Your task to perform on an android device: remove spam from my inbox in the gmail app Image 0: 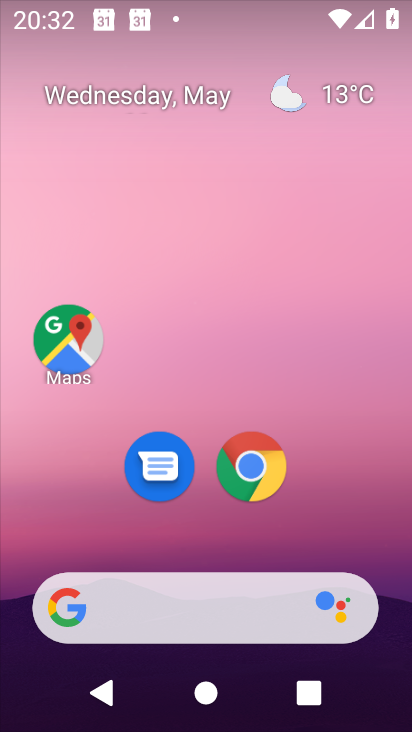
Step 0: drag from (215, 529) to (215, 57)
Your task to perform on an android device: remove spam from my inbox in the gmail app Image 1: 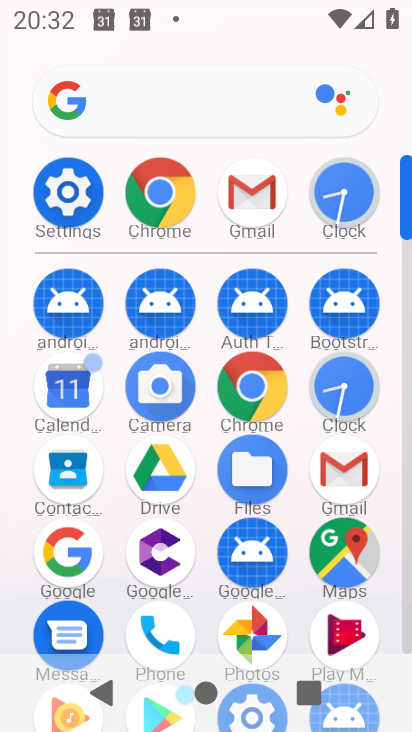
Step 1: click (346, 464)
Your task to perform on an android device: remove spam from my inbox in the gmail app Image 2: 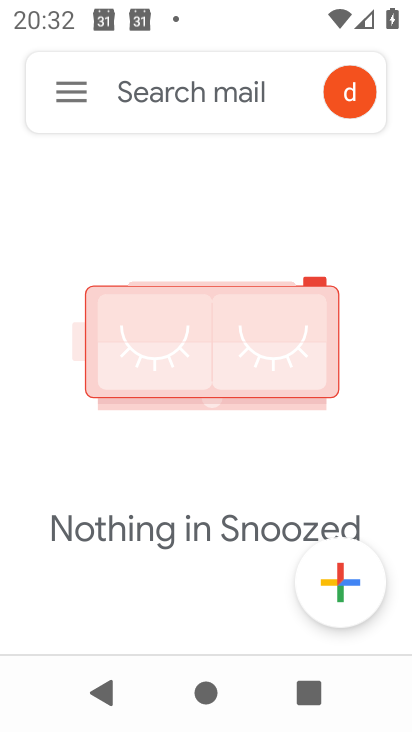
Step 2: click (68, 85)
Your task to perform on an android device: remove spam from my inbox in the gmail app Image 3: 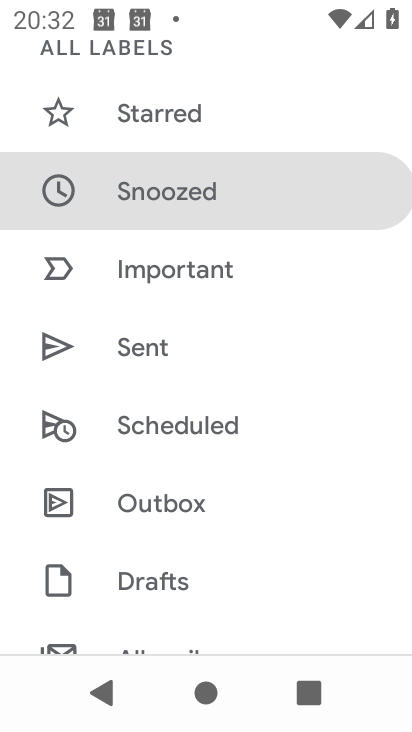
Step 3: drag from (125, 602) to (149, 146)
Your task to perform on an android device: remove spam from my inbox in the gmail app Image 4: 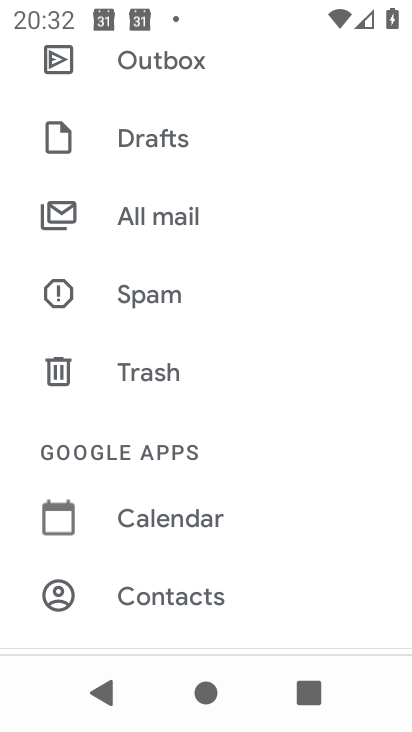
Step 4: click (92, 292)
Your task to perform on an android device: remove spam from my inbox in the gmail app Image 5: 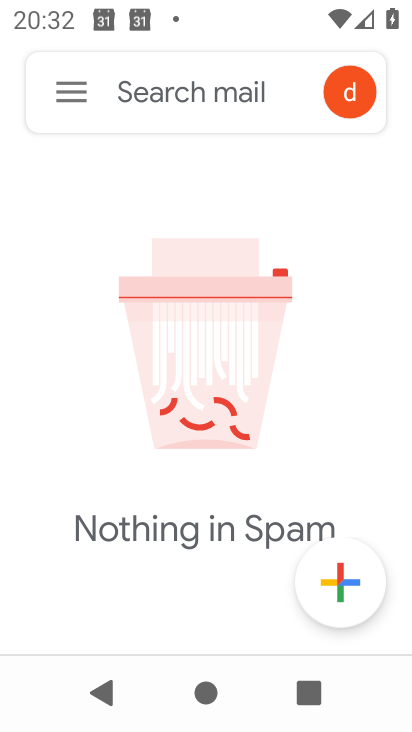
Step 5: task complete